Your task to perform on an android device: turn off sleep mode Image 0: 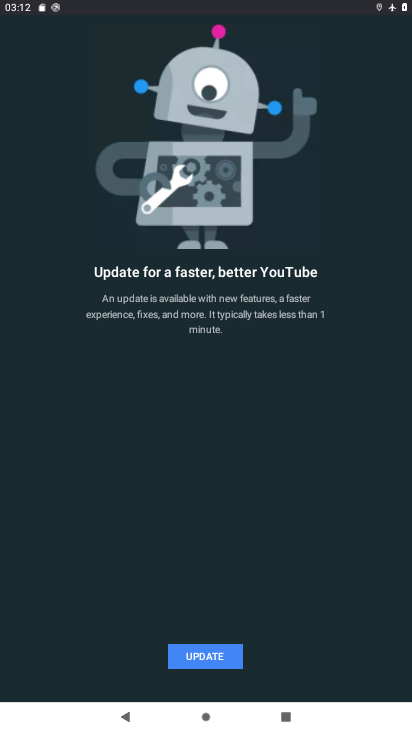
Step 0: press home button
Your task to perform on an android device: turn off sleep mode Image 1: 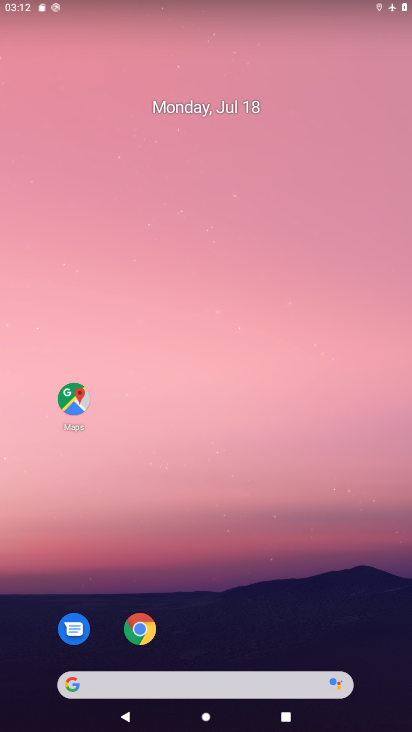
Step 1: drag from (282, 470) to (324, 125)
Your task to perform on an android device: turn off sleep mode Image 2: 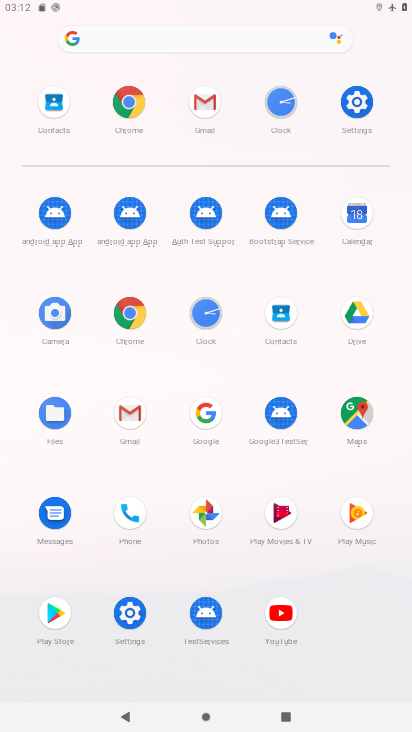
Step 2: click (349, 114)
Your task to perform on an android device: turn off sleep mode Image 3: 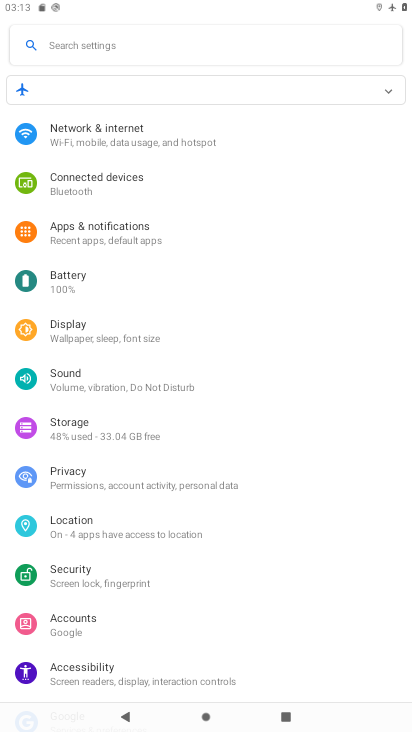
Step 3: drag from (325, 370) to (333, 310)
Your task to perform on an android device: turn off sleep mode Image 4: 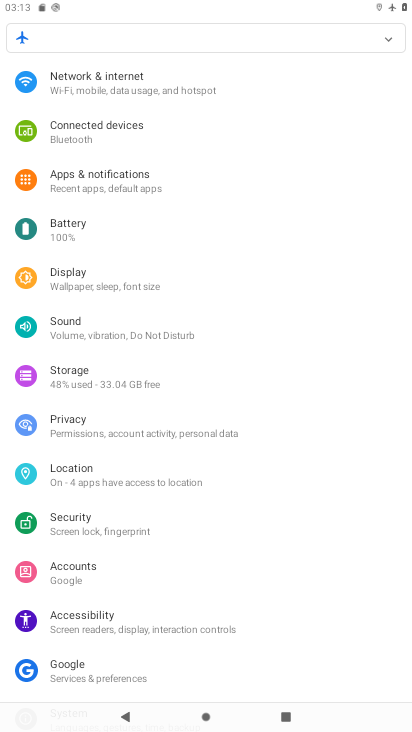
Step 4: drag from (342, 395) to (351, 322)
Your task to perform on an android device: turn off sleep mode Image 5: 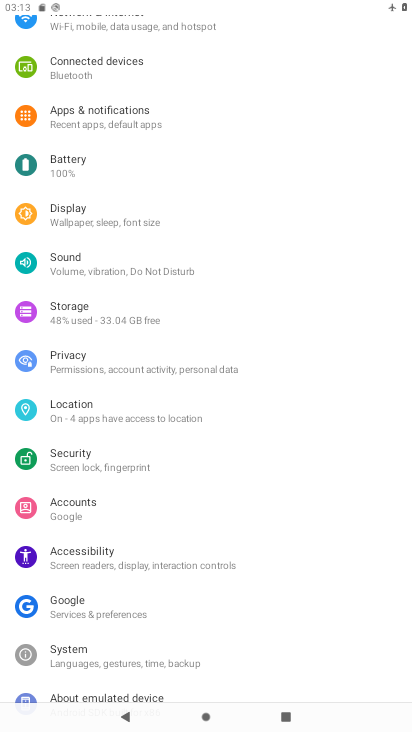
Step 5: drag from (341, 379) to (341, 276)
Your task to perform on an android device: turn off sleep mode Image 6: 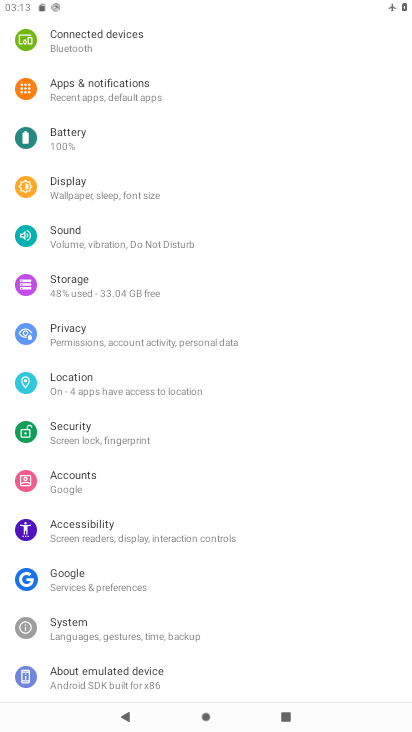
Step 6: click (172, 186)
Your task to perform on an android device: turn off sleep mode Image 7: 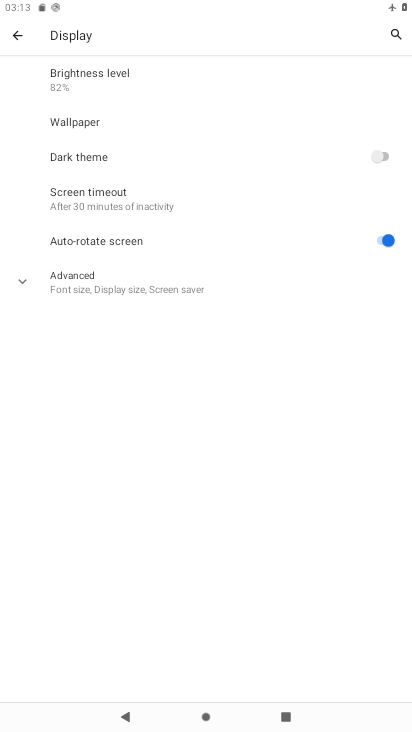
Step 7: click (197, 289)
Your task to perform on an android device: turn off sleep mode Image 8: 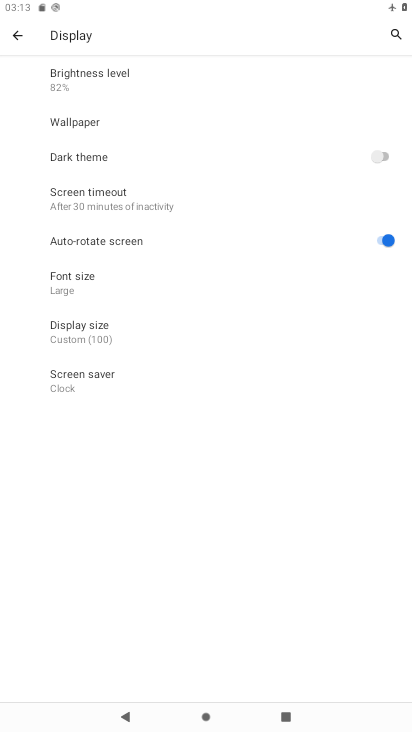
Step 8: task complete